Your task to perform on an android device: add a contact Image 0: 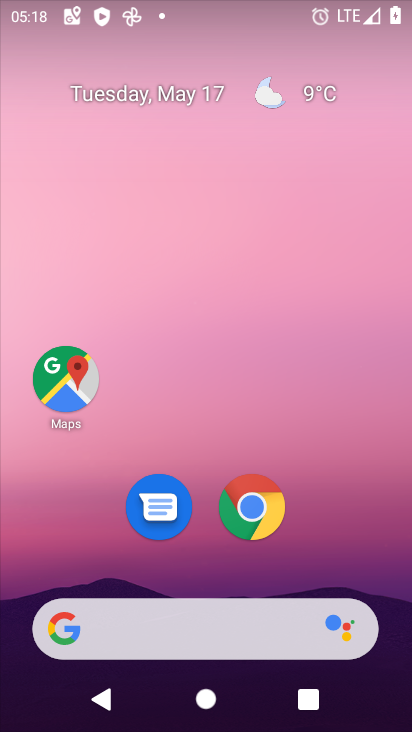
Step 0: drag from (260, 251) to (210, 96)
Your task to perform on an android device: add a contact Image 1: 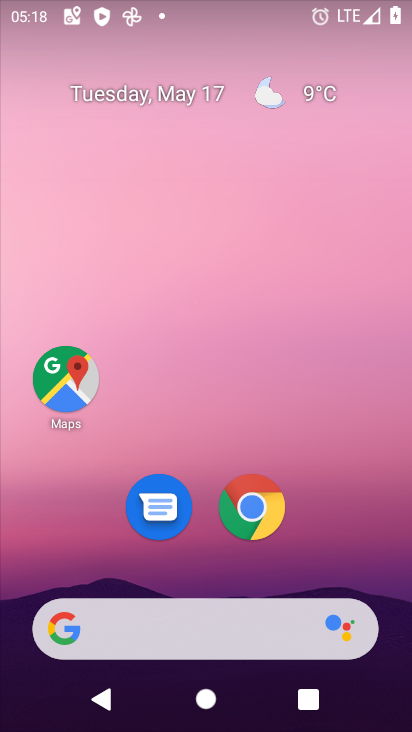
Step 1: drag from (327, 478) to (246, 84)
Your task to perform on an android device: add a contact Image 2: 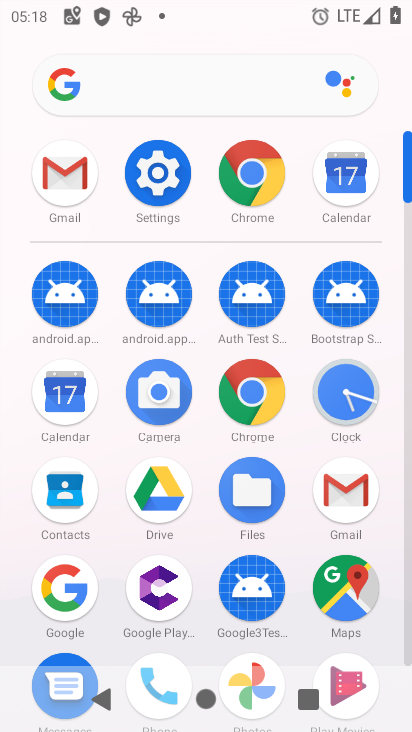
Step 2: click (72, 501)
Your task to perform on an android device: add a contact Image 3: 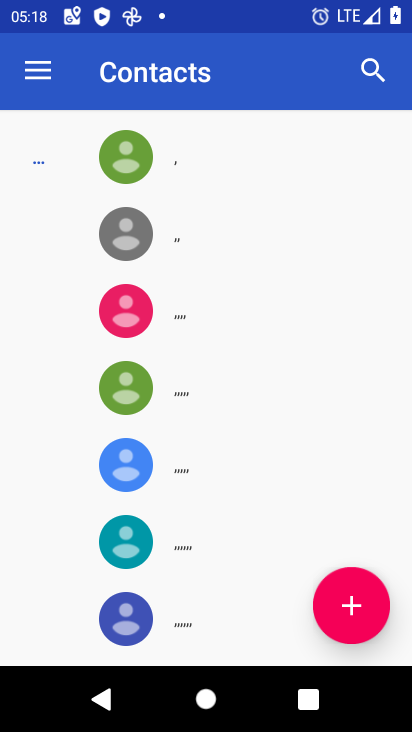
Step 3: click (347, 618)
Your task to perform on an android device: add a contact Image 4: 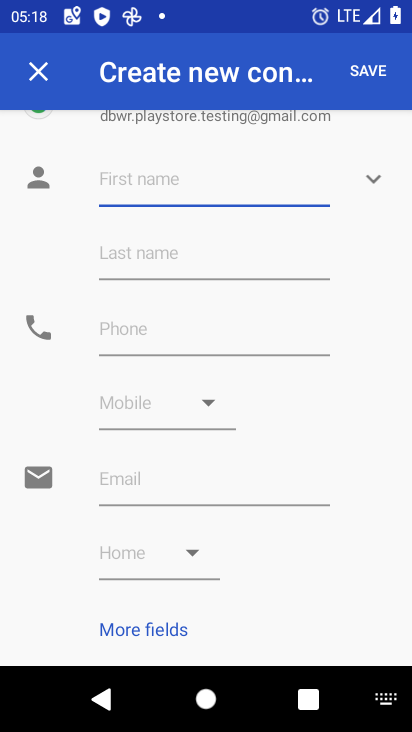
Step 4: type "fgs"
Your task to perform on an android device: add a contact Image 5: 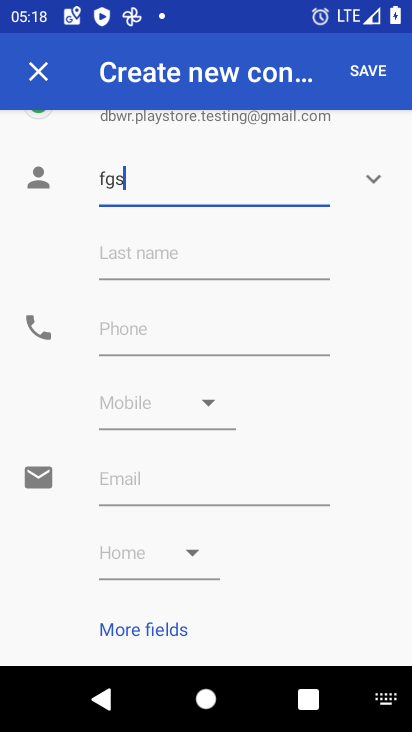
Step 5: click (214, 273)
Your task to perform on an android device: add a contact Image 6: 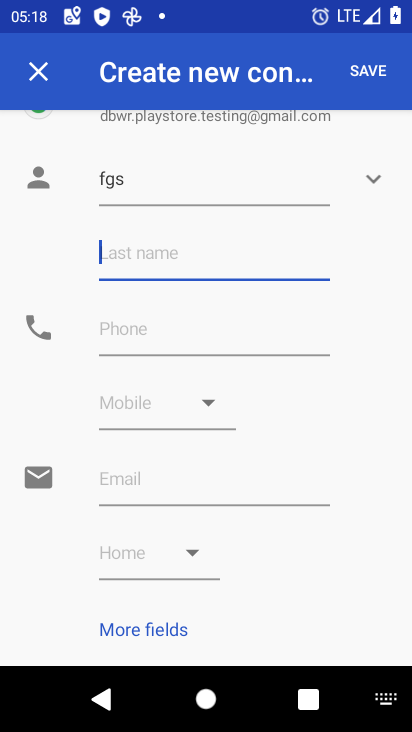
Step 6: type "dgs"
Your task to perform on an android device: add a contact Image 7: 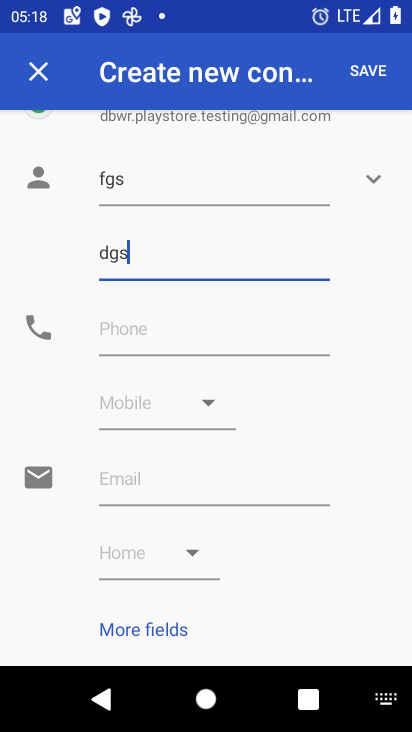
Step 7: type ""
Your task to perform on an android device: add a contact Image 8: 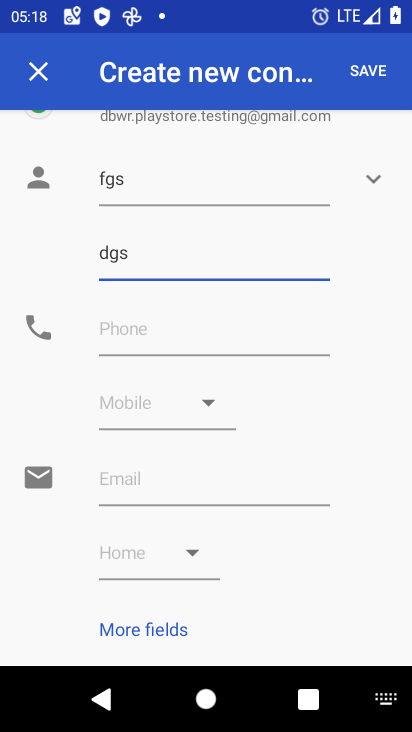
Step 8: click (178, 323)
Your task to perform on an android device: add a contact Image 9: 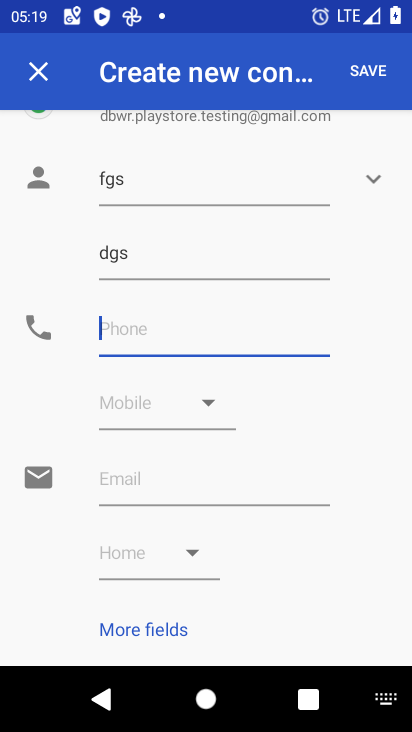
Step 9: type "56456456"
Your task to perform on an android device: add a contact Image 10: 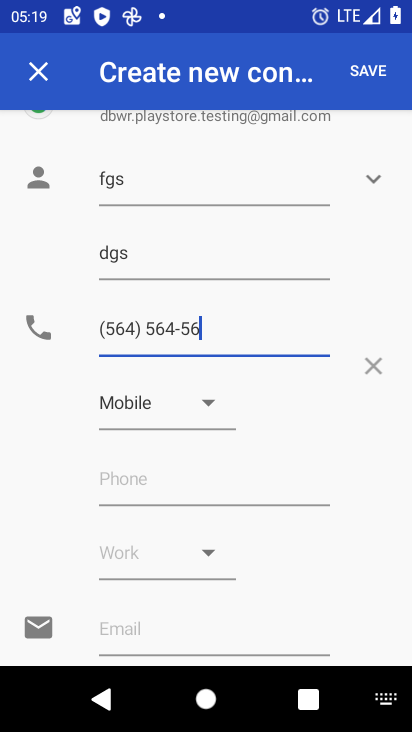
Step 10: type ""
Your task to perform on an android device: add a contact Image 11: 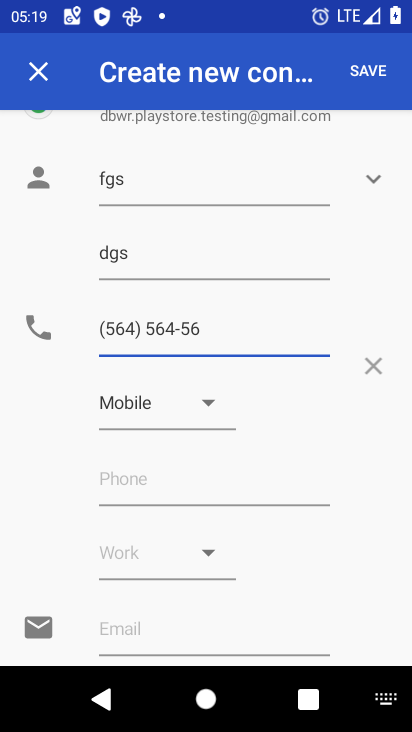
Step 11: click (370, 67)
Your task to perform on an android device: add a contact Image 12: 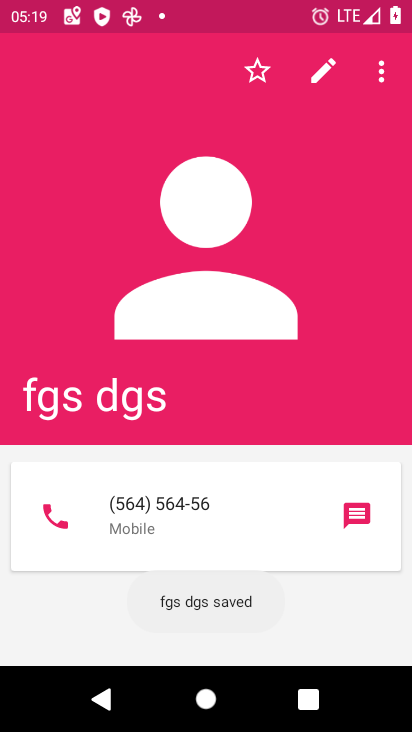
Step 12: task complete